Your task to perform on an android device: turn off translation in the chrome app Image 0: 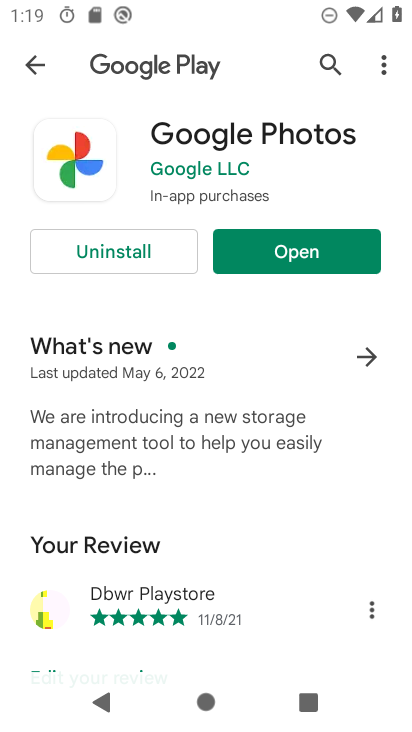
Step 0: press home button
Your task to perform on an android device: turn off translation in the chrome app Image 1: 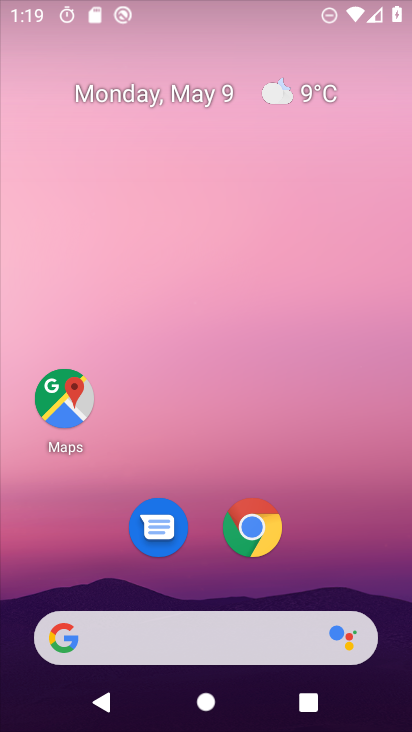
Step 1: click (254, 532)
Your task to perform on an android device: turn off translation in the chrome app Image 2: 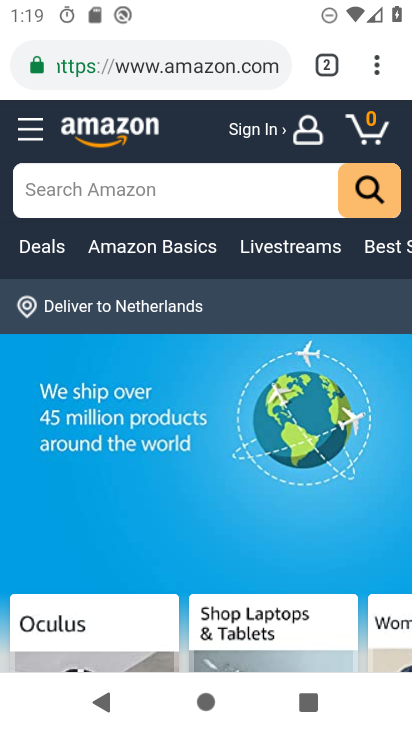
Step 2: drag from (374, 64) to (166, 574)
Your task to perform on an android device: turn off translation in the chrome app Image 3: 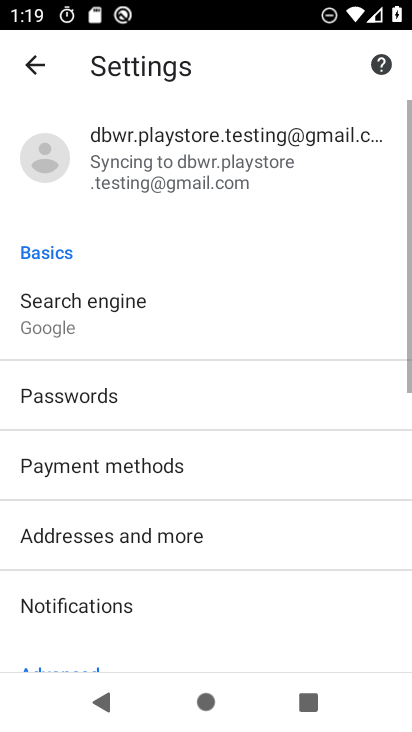
Step 3: drag from (155, 573) to (288, 101)
Your task to perform on an android device: turn off translation in the chrome app Image 4: 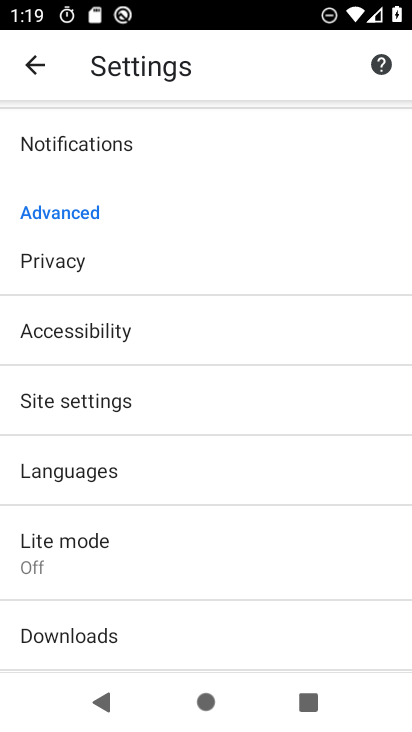
Step 4: click (83, 459)
Your task to perform on an android device: turn off translation in the chrome app Image 5: 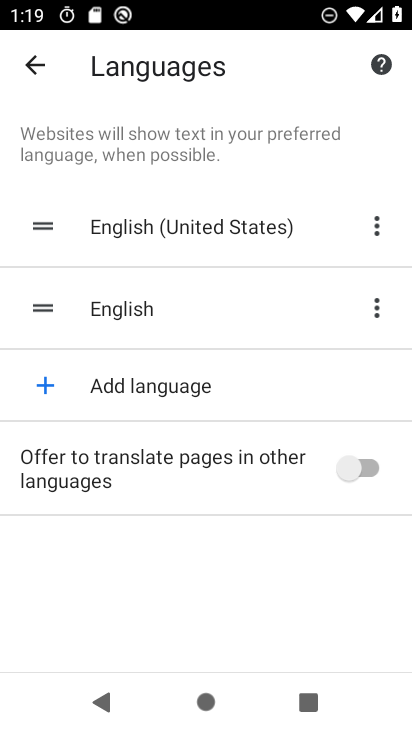
Step 5: task complete